Your task to perform on an android device: toggle show notifications on the lock screen Image 0: 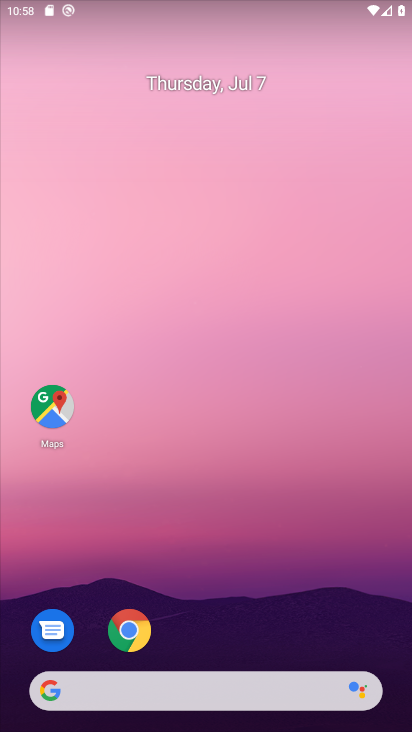
Step 0: drag from (262, 387) to (275, 333)
Your task to perform on an android device: toggle show notifications on the lock screen Image 1: 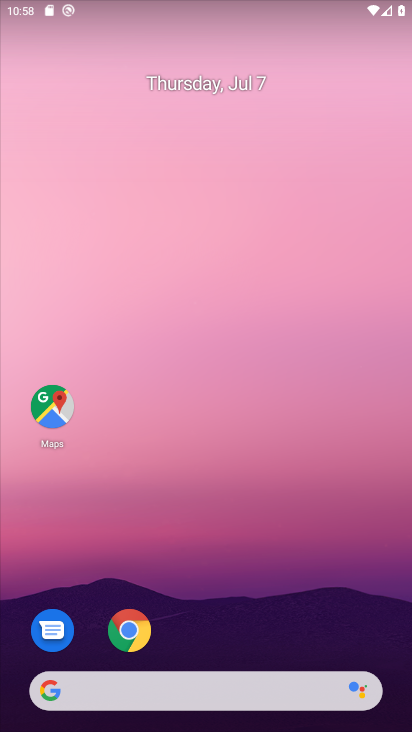
Step 1: drag from (260, 602) to (278, 13)
Your task to perform on an android device: toggle show notifications on the lock screen Image 2: 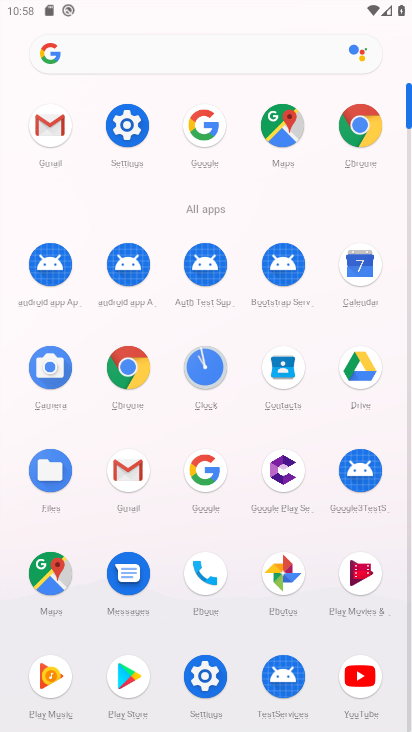
Step 2: click (134, 127)
Your task to perform on an android device: toggle show notifications on the lock screen Image 3: 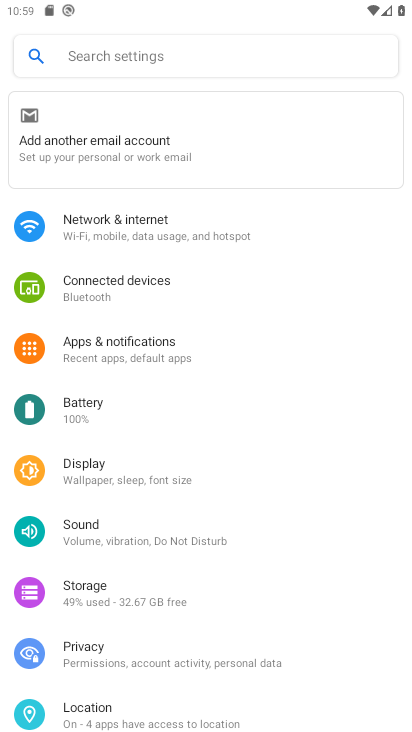
Step 3: click (122, 334)
Your task to perform on an android device: toggle show notifications on the lock screen Image 4: 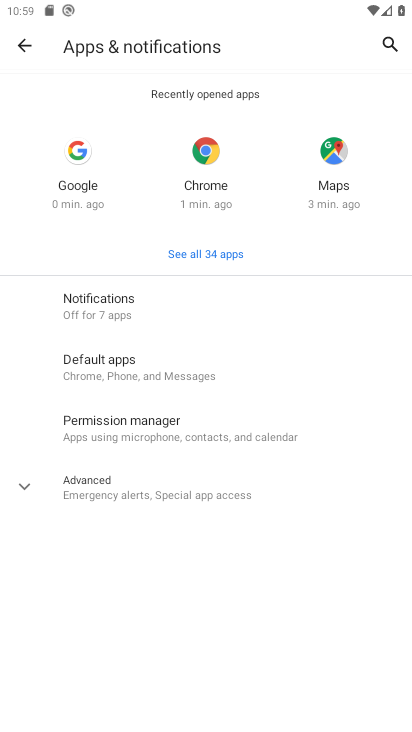
Step 4: click (128, 311)
Your task to perform on an android device: toggle show notifications on the lock screen Image 5: 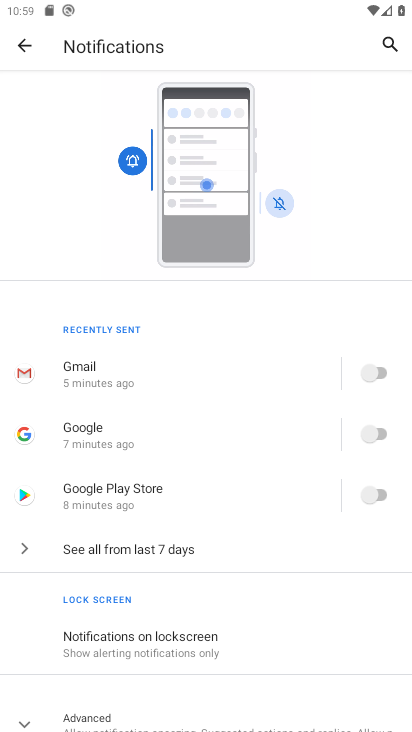
Step 5: click (161, 641)
Your task to perform on an android device: toggle show notifications on the lock screen Image 6: 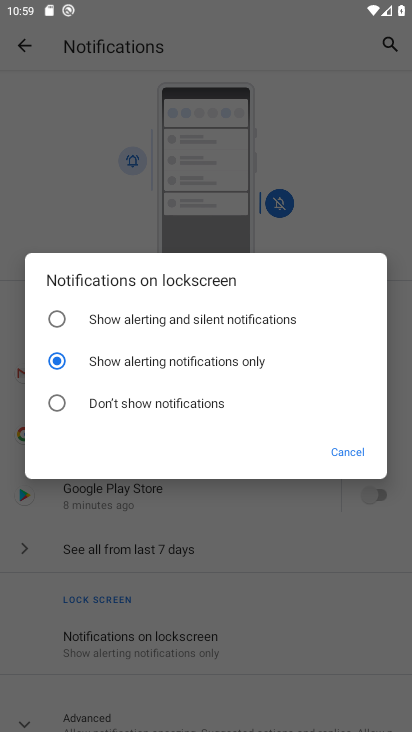
Step 6: click (233, 327)
Your task to perform on an android device: toggle show notifications on the lock screen Image 7: 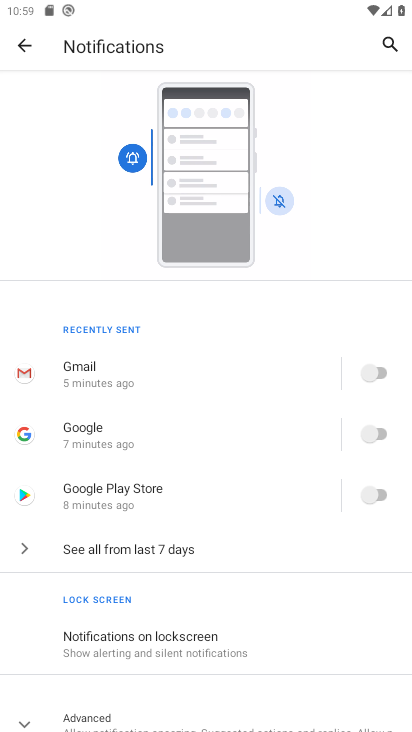
Step 7: task complete